Your task to perform on an android device: Open Google Chrome and open the bookmarks view Image 0: 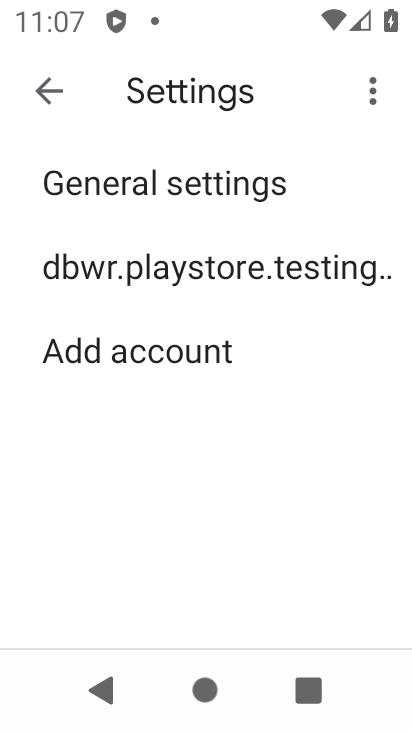
Step 0: press home button
Your task to perform on an android device: Open Google Chrome and open the bookmarks view Image 1: 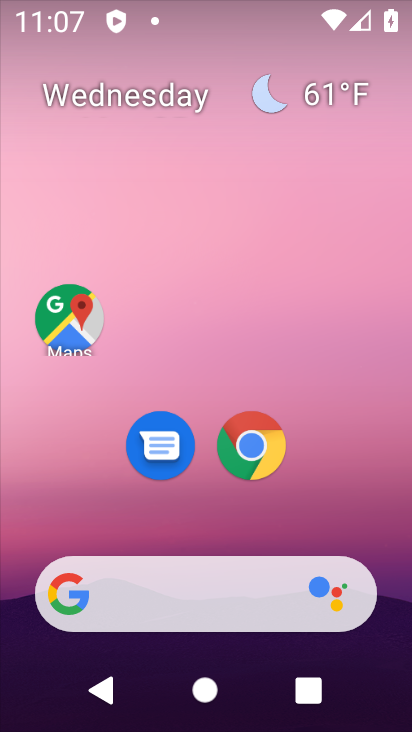
Step 1: drag from (336, 496) to (347, 150)
Your task to perform on an android device: Open Google Chrome and open the bookmarks view Image 2: 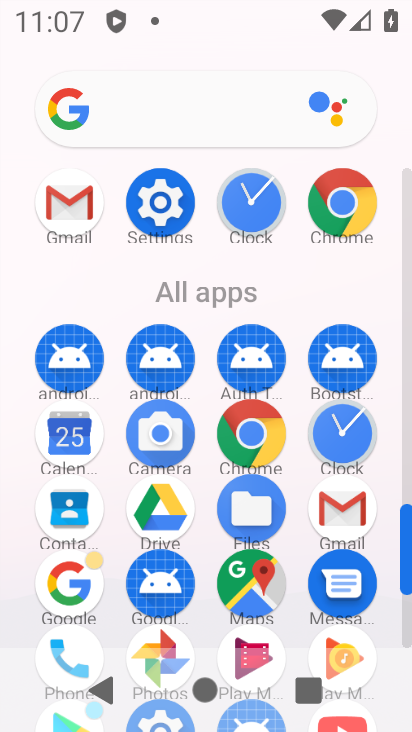
Step 2: click (293, 428)
Your task to perform on an android device: Open Google Chrome and open the bookmarks view Image 3: 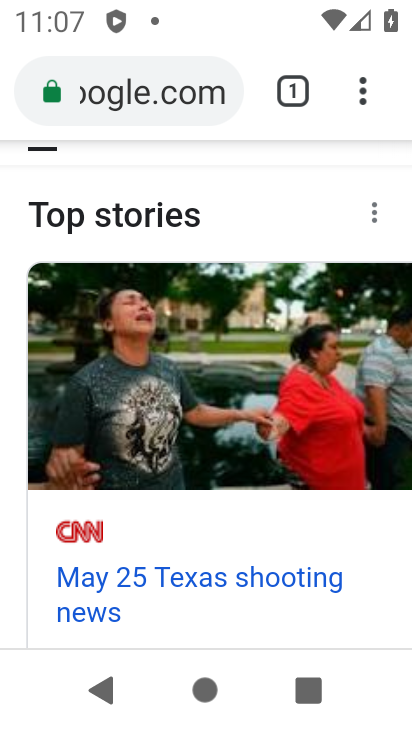
Step 3: task complete